Your task to perform on an android device: turn on javascript in the chrome app Image 0: 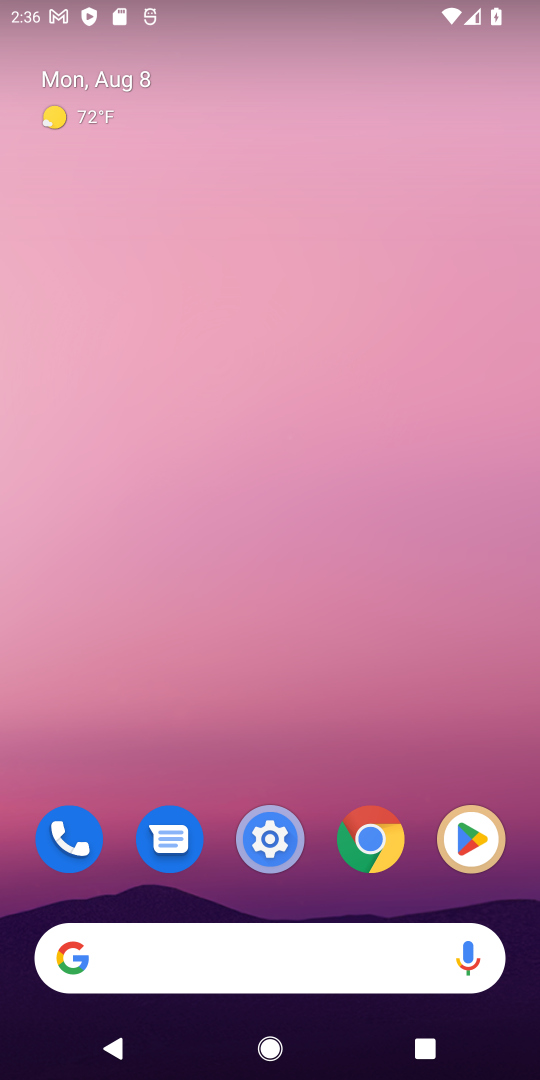
Step 0: press home button
Your task to perform on an android device: turn on javascript in the chrome app Image 1: 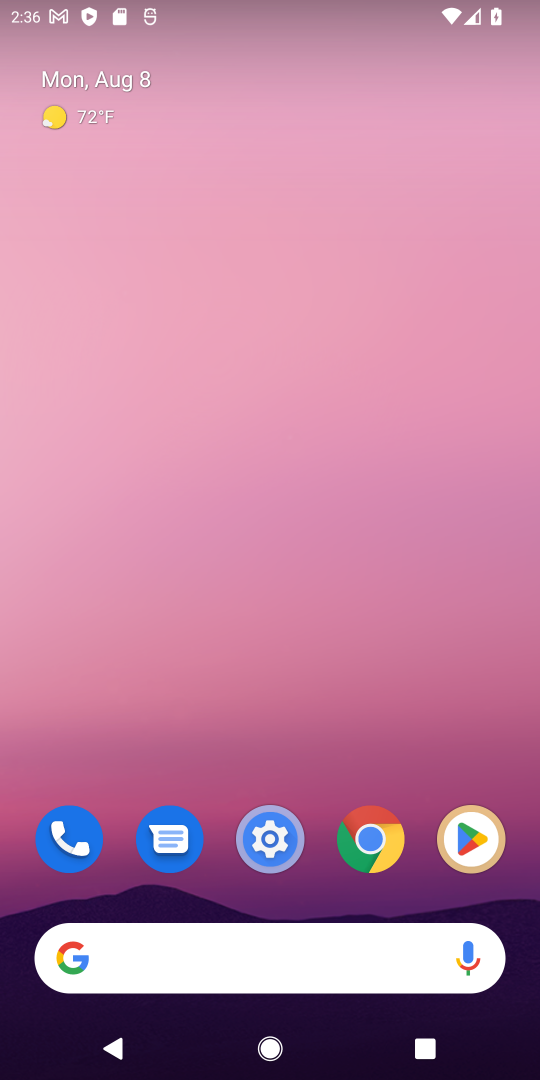
Step 1: drag from (323, 653) to (426, 259)
Your task to perform on an android device: turn on javascript in the chrome app Image 2: 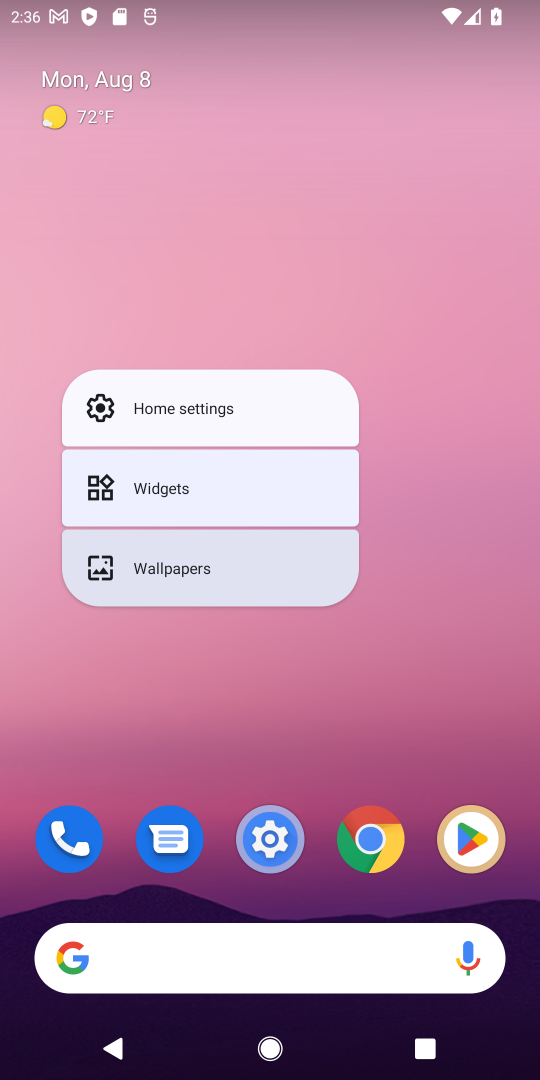
Step 2: click (483, 518)
Your task to perform on an android device: turn on javascript in the chrome app Image 3: 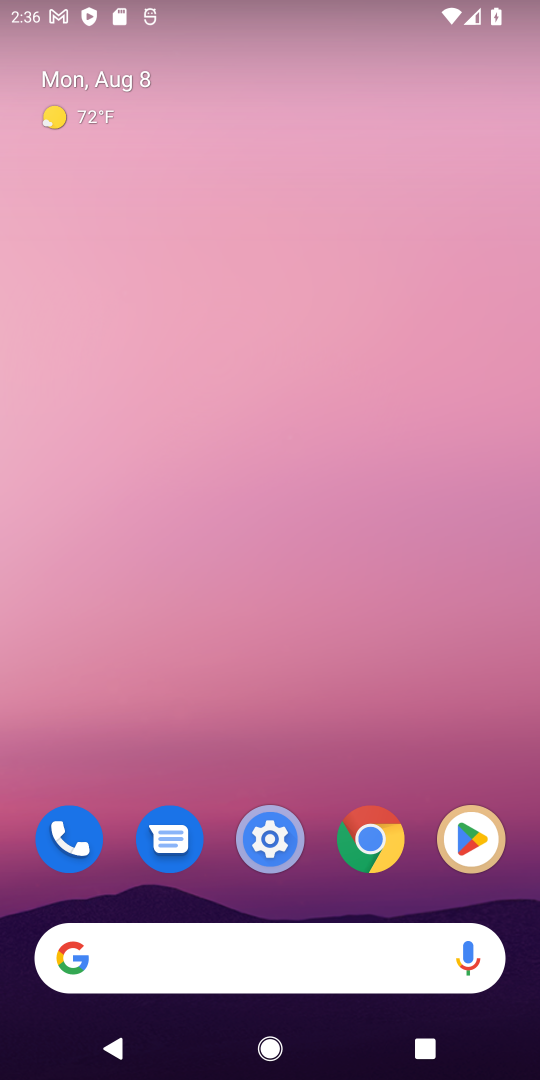
Step 3: drag from (414, 718) to (403, 157)
Your task to perform on an android device: turn on javascript in the chrome app Image 4: 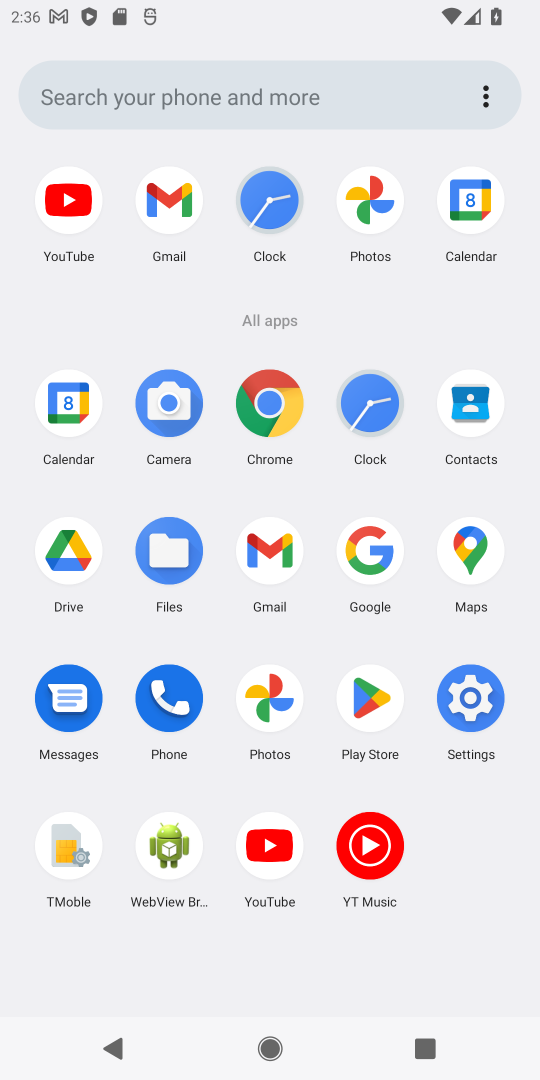
Step 4: click (269, 398)
Your task to perform on an android device: turn on javascript in the chrome app Image 5: 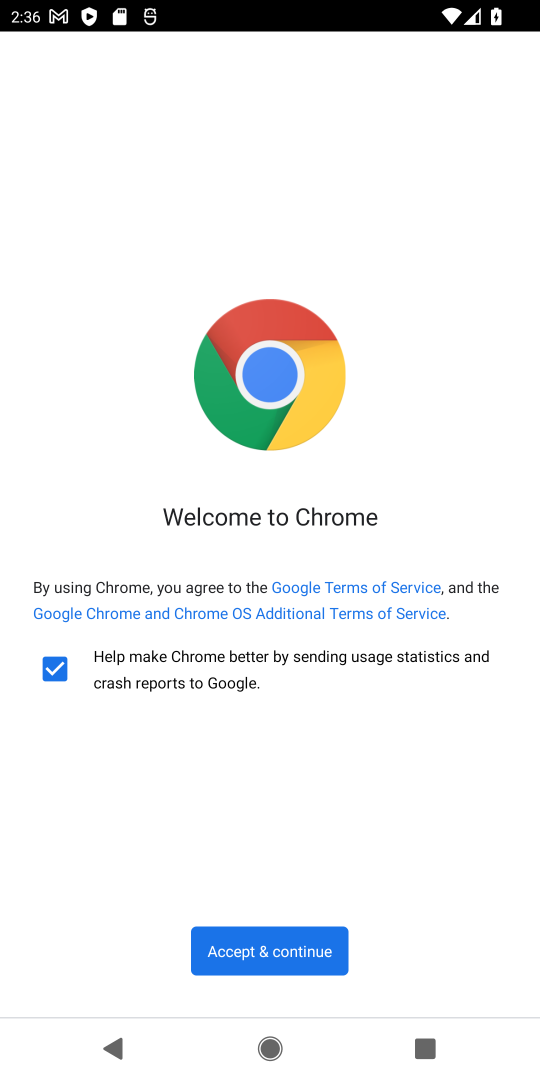
Step 5: click (261, 961)
Your task to perform on an android device: turn on javascript in the chrome app Image 6: 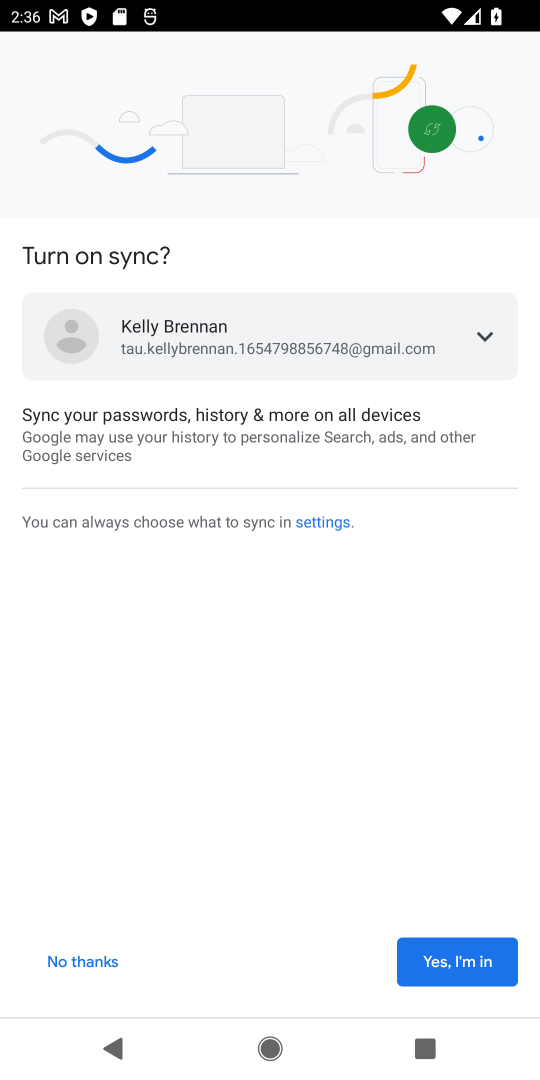
Step 6: click (454, 964)
Your task to perform on an android device: turn on javascript in the chrome app Image 7: 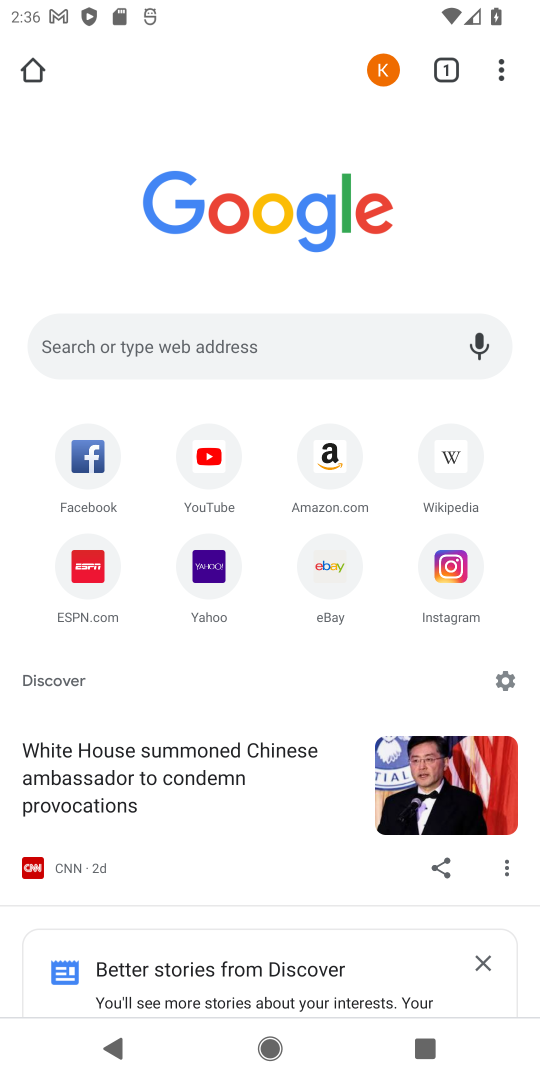
Step 7: click (502, 72)
Your task to perform on an android device: turn on javascript in the chrome app Image 8: 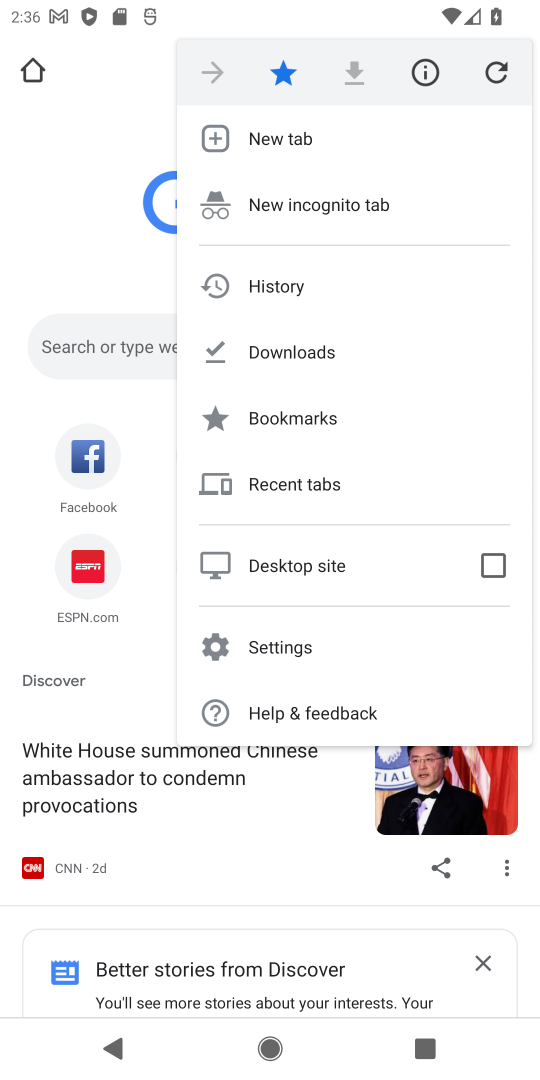
Step 8: click (367, 655)
Your task to perform on an android device: turn on javascript in the chrome app Image 9: 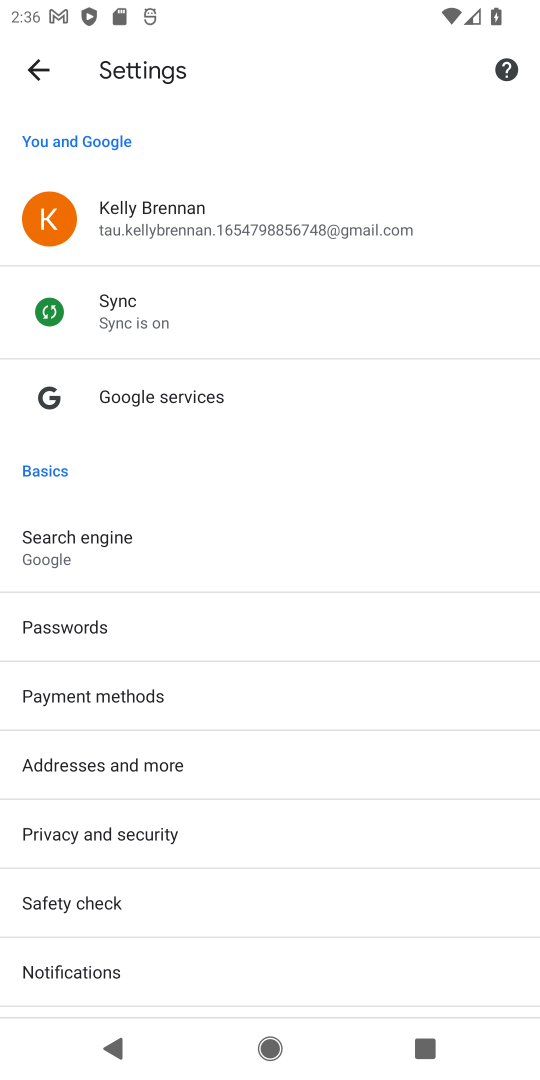
Step 9: drag from (387, 669) to (398, 556)
Your task to perform on an android device: turn on javascript in the chrome app Image 10: 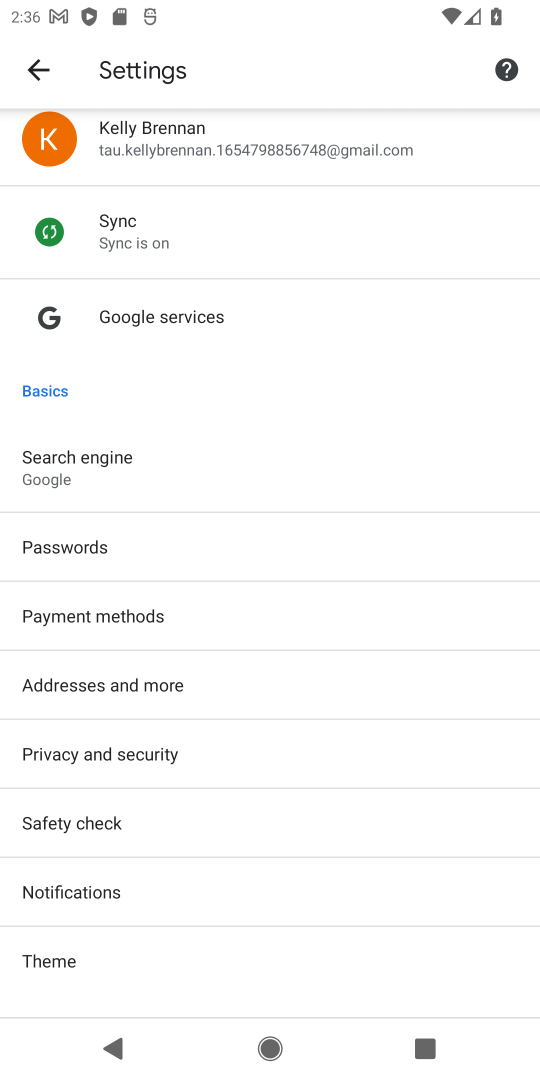
Step 10: drag from (401, 670) to (424, 520)
Your task to perform on an android device: turn on javascript in the chrome app Image 11: 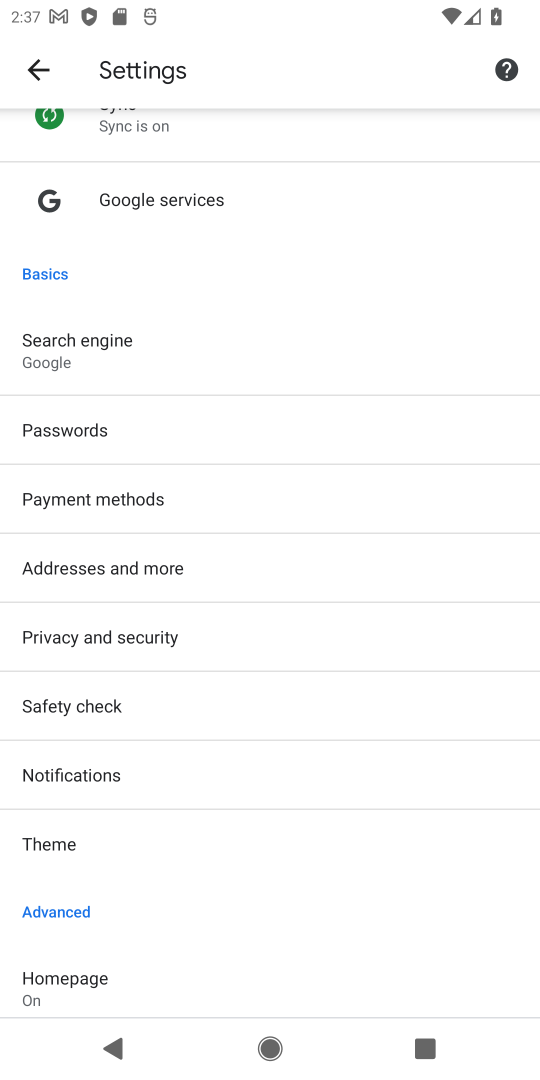
Step 11: drag from (407, 701) to (425, 511)
Your task to perform on an android device: turn on javascript in the chrome app Image 12: 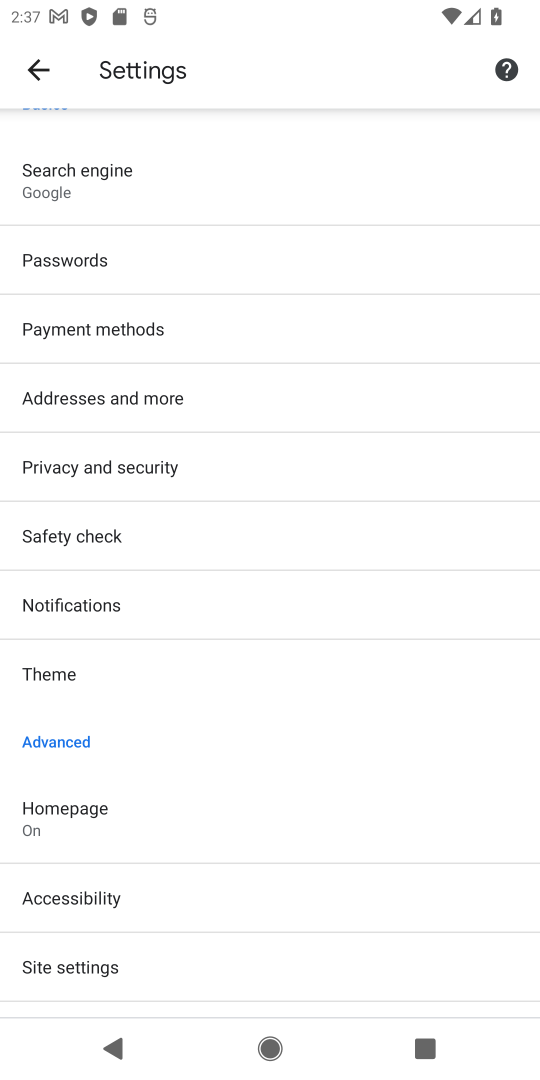
Step 12: drag from (399, 698) to (408, 543)
Your task to perform on an android device: turn on javascript in the chrome app Image 13: 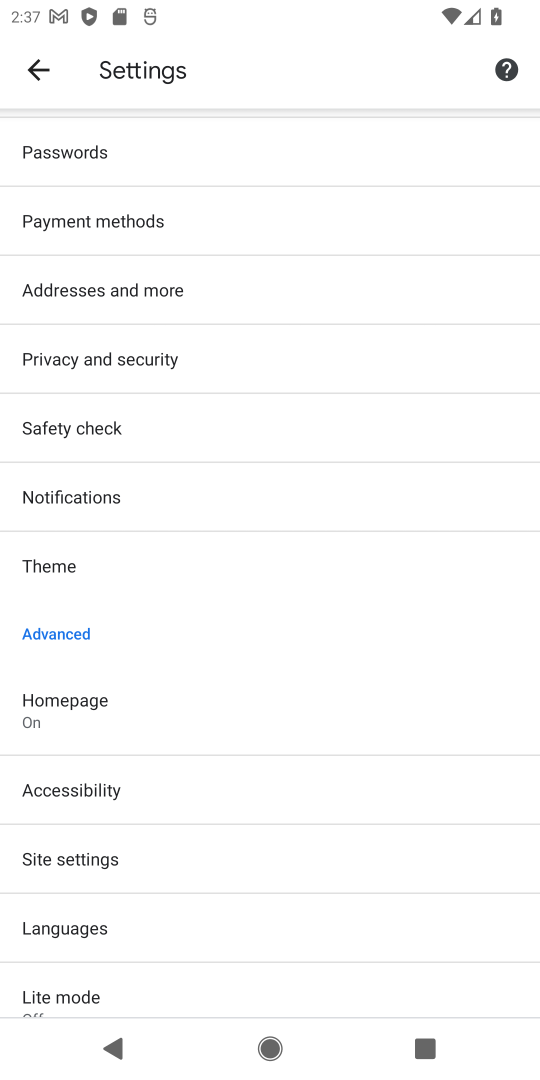
Step 13: drag from (375, 739) to (399, 581)
Your task to perform on an android device: turn on javascript in the chrome app Image 14: 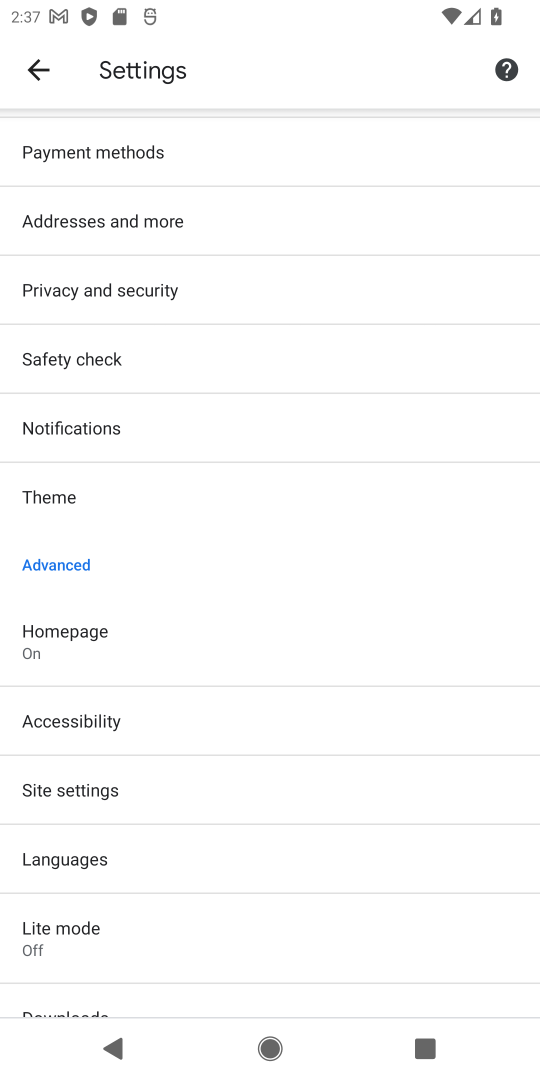
Step 14: drag from (385, 810) to (409, 489)
Your task to perform on an android device: turn on javascript in the chrome app Image 15: 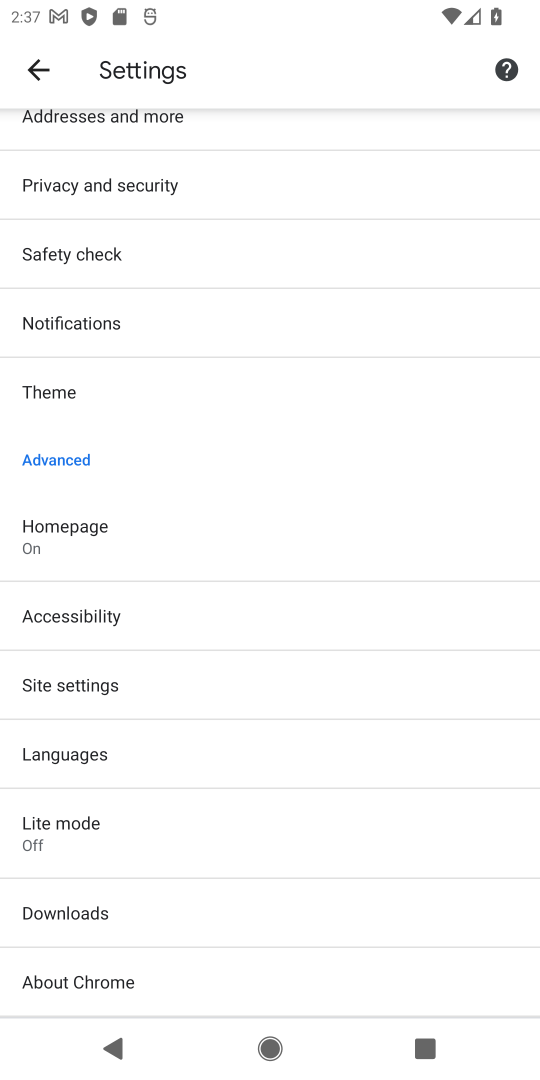
Step 15: click (386, 702)
Your task to perform on an android device: turn on javascript in the chrome app Image 16: 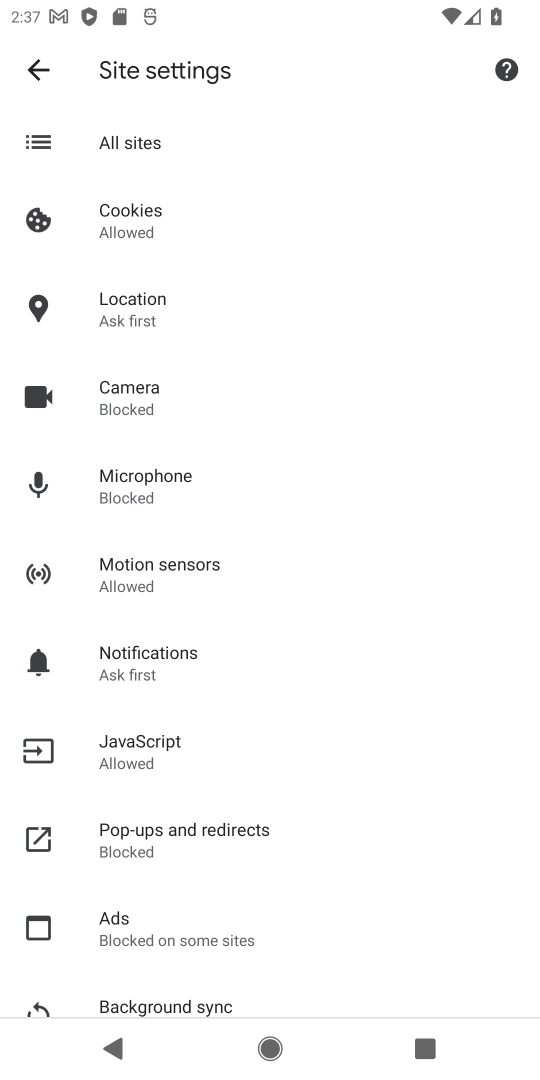
Step 16: click (325, 764)
Your task to perform on an android device: turn on javascript in the chrome app Image 17: 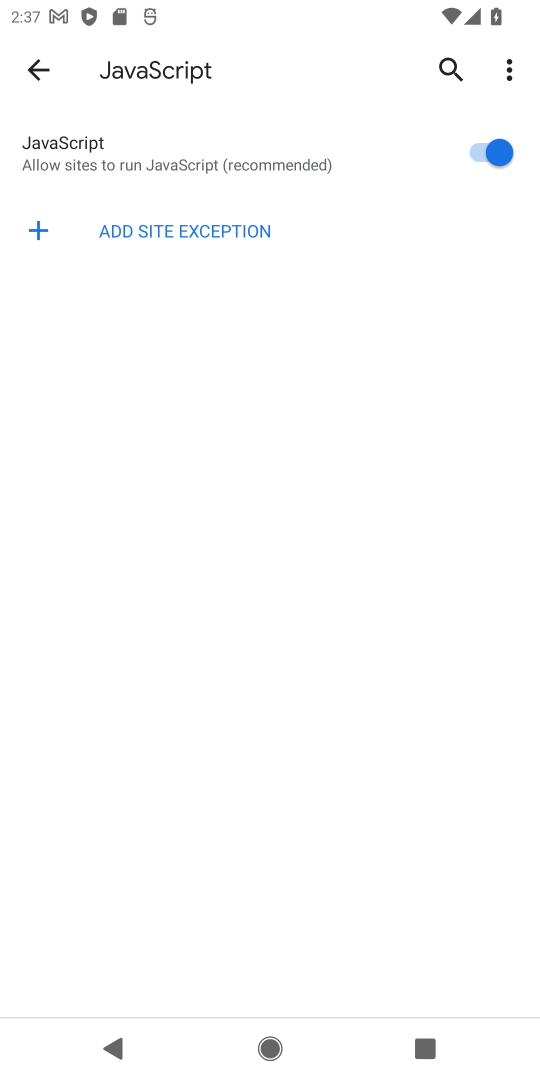
Step 17: task complete